Your task to perform on an android device: toggle location history Image 0: 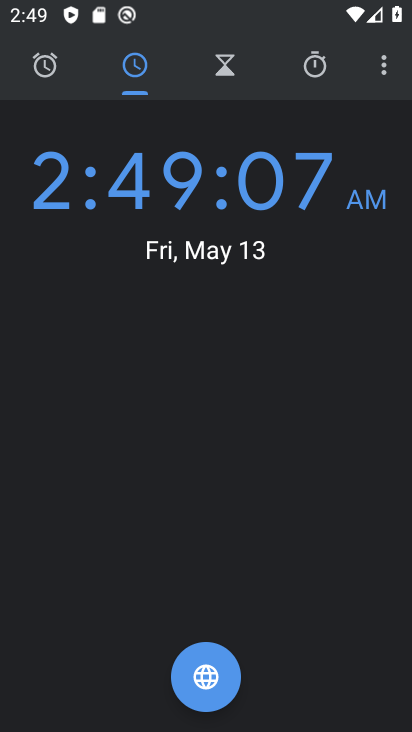
Step 0: press home button
Your task to perform on an android device: toggle location history Image 1: 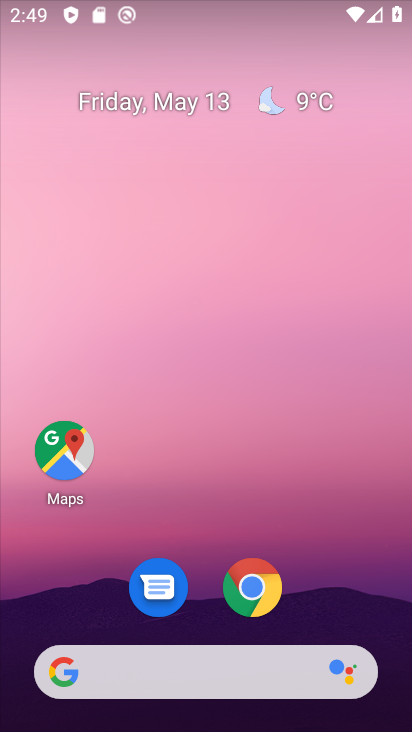
Step 1: drag from (334, 593) to (376, 171)
Your task to perform on an android device: toggle location history Image 2: 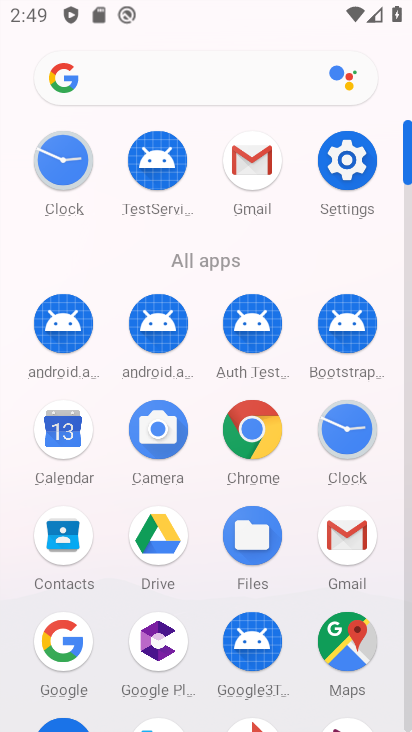
Step 2: click (361, 176)
Your task to perform on an android device: toggle location history Image 3: 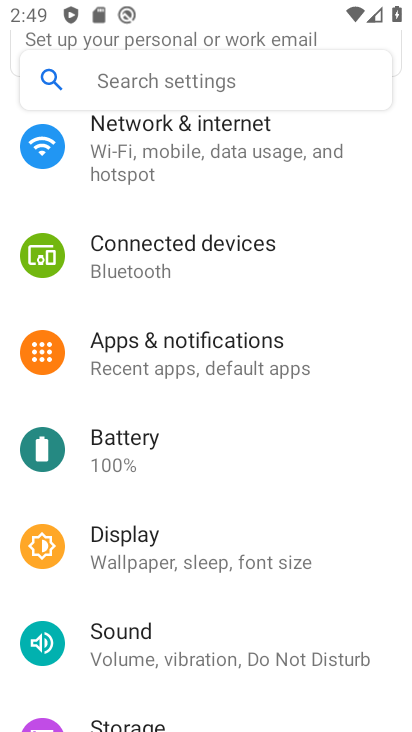
Step 3: drag from (192, 611) to (190, 191)
Your task to perform on an android device: toggle location history Image 4: 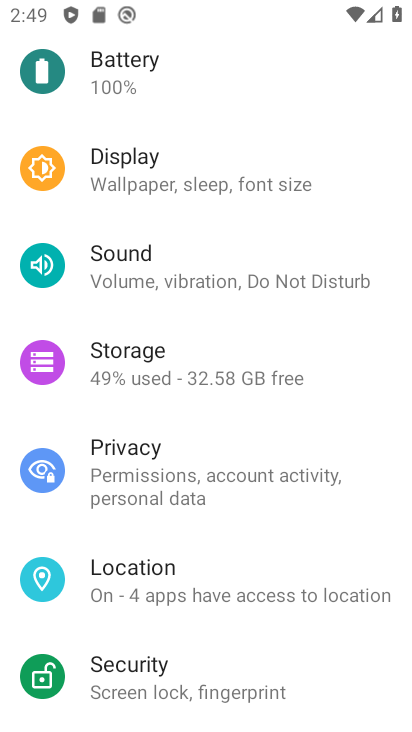
Step 4: click (206, 585)
Your task to perform on an android device: toggle location history Image 5: 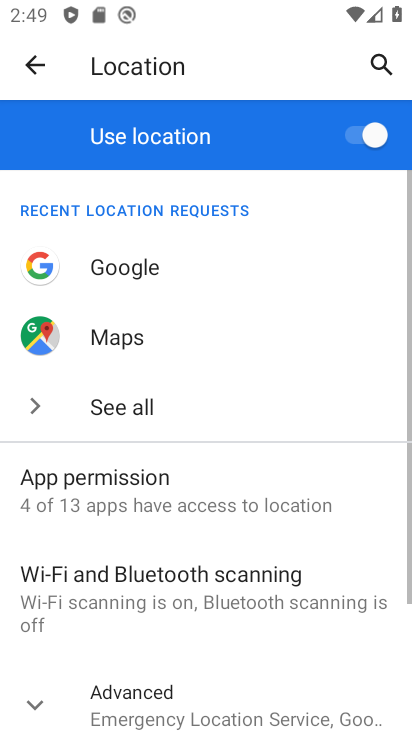
Step 5: drag from (171, 605) to (182, 324)
Your task to perform on an android device: toggle location history Image 6: 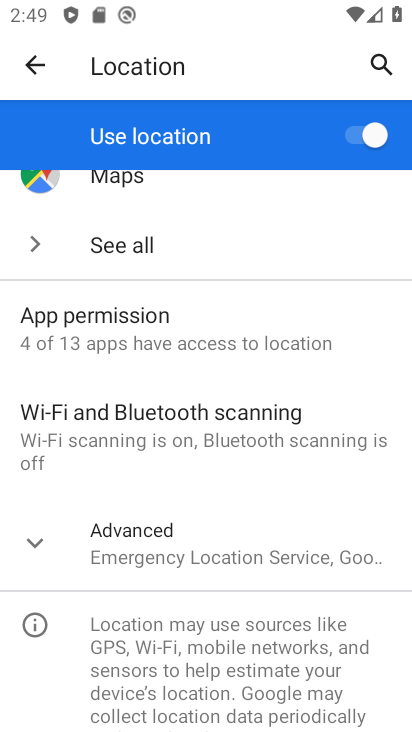
Step 6: click (35, 542)
Your task to perform on an android device: toggle location history Image 7: 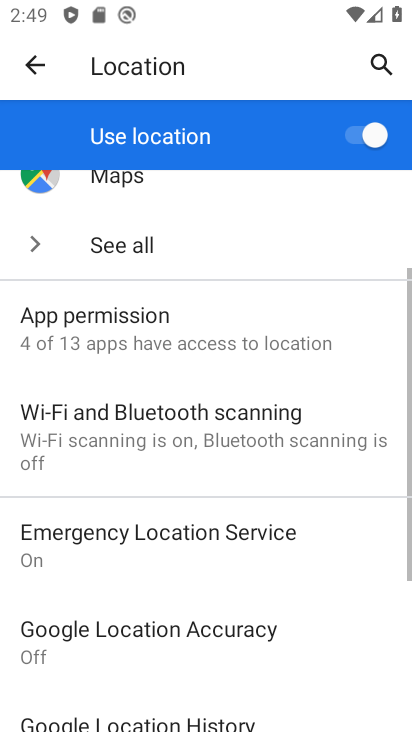
Step 7: drag from (179, 578) to (206, 205)
Your task to perform on an android device: toggle location history Image 8: 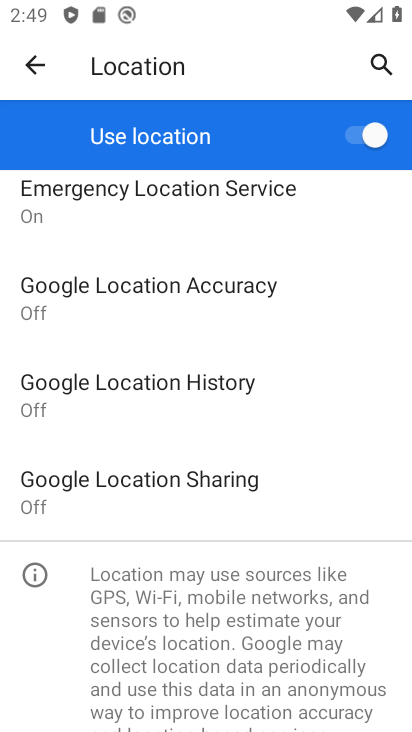
Step 8: click (203, 403)
Your task to perform on an android device: toggle location history Image 9: 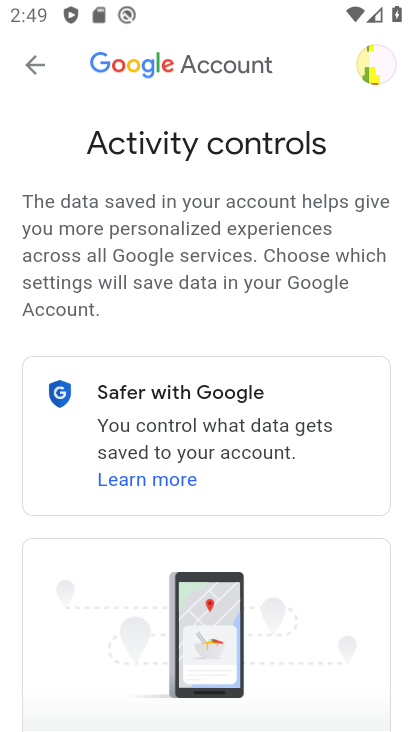
Step 9: drag from (322, 624) to (329, 317)
Your task to perform on an android device: toggle location history Image 10: 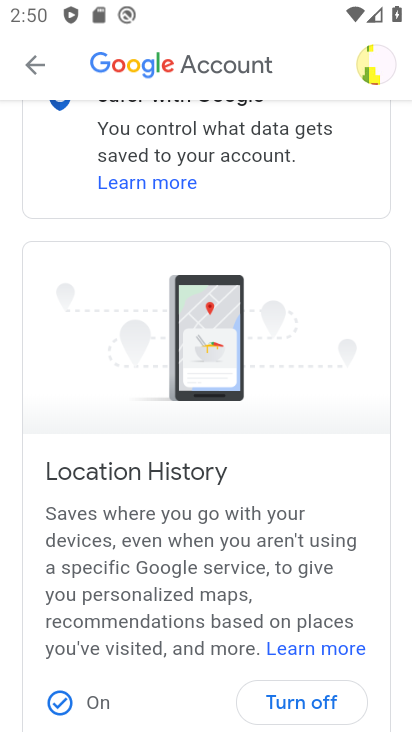
Step 10: click (319, 704)
Your task to perform on an android device: toggle location history Image 11: 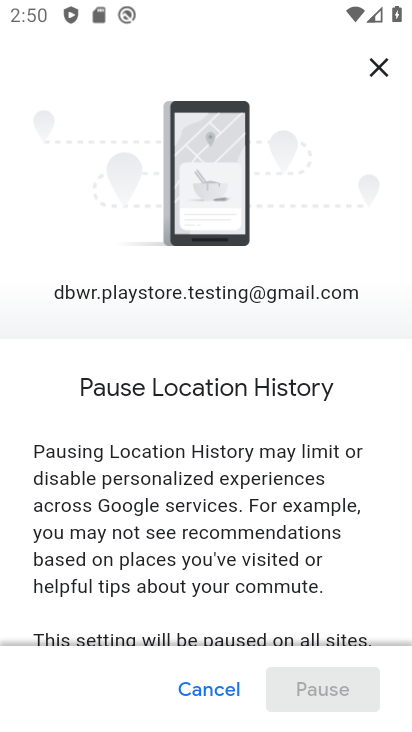
Step 11: drag from (327, 583) to (309, 206)
Your task to perform on an android device: toggle location history Image 12: 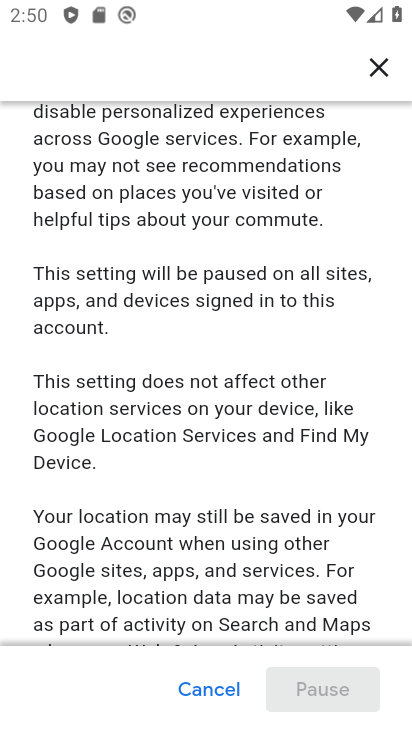
Step 12: drag from (306, 553) to (290, 265)
Your task to perform on an android device: toggle location history Image 13: 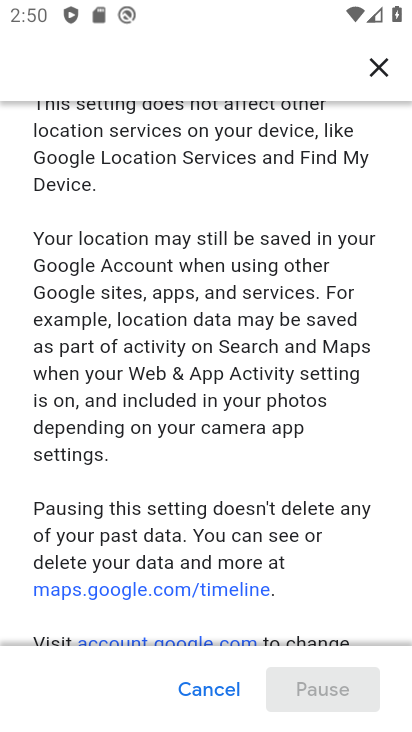
Step 13: drag from (272, 582) to (327, 262)
Your task to perform on an android device: toggle location history Image 14: 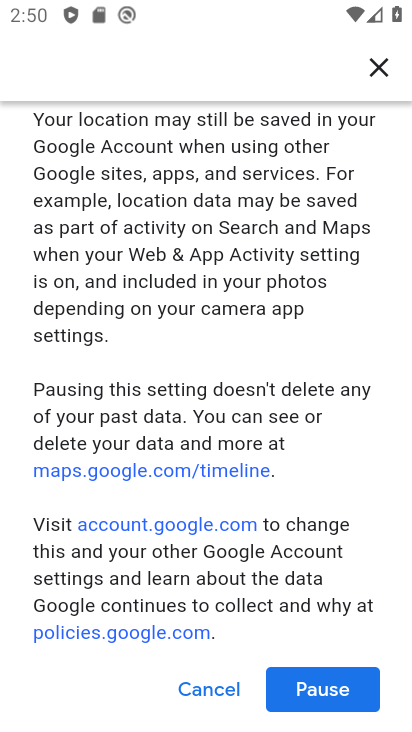
Step 14: drag from (339, 605) to (354, 284)
Your task to perform on an android device: toggle location history Image 15: 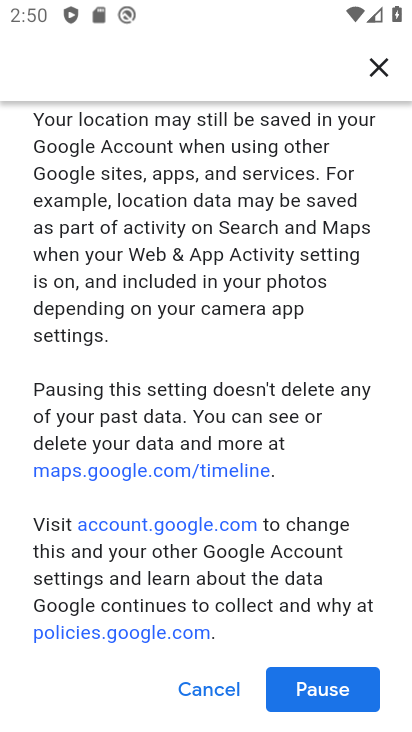
Step 15: drag from (286, 632) to (309, 450)
Your task to perform on an android device: toggle location history Image 16: 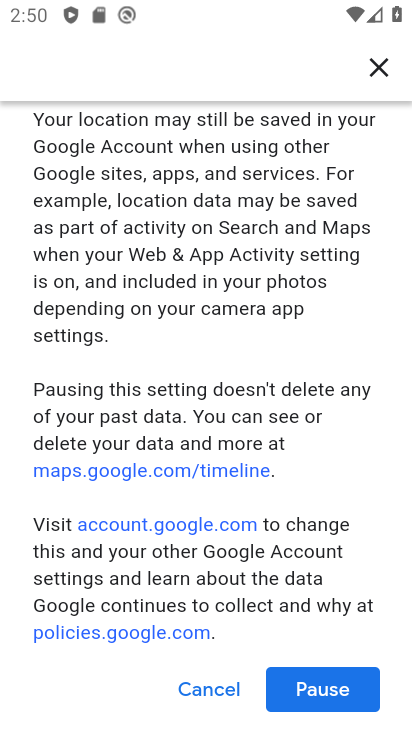
Step 16: click (319, 687)
Your task to perform on an android device: toggle location history Image 17: 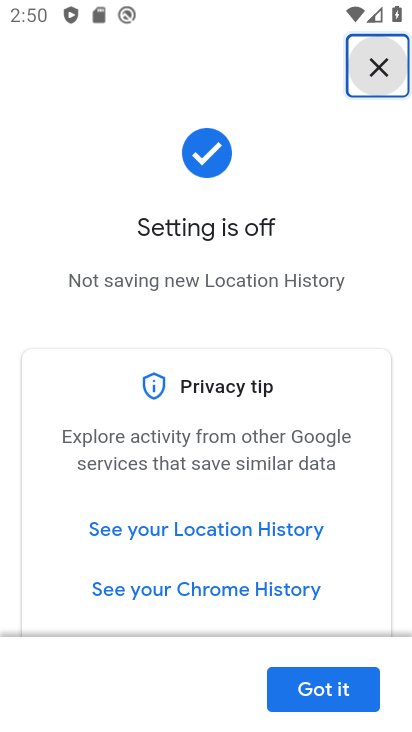
Step 17: click (318, 686)
Your task to perform on an android device: toggle location history Image 18: 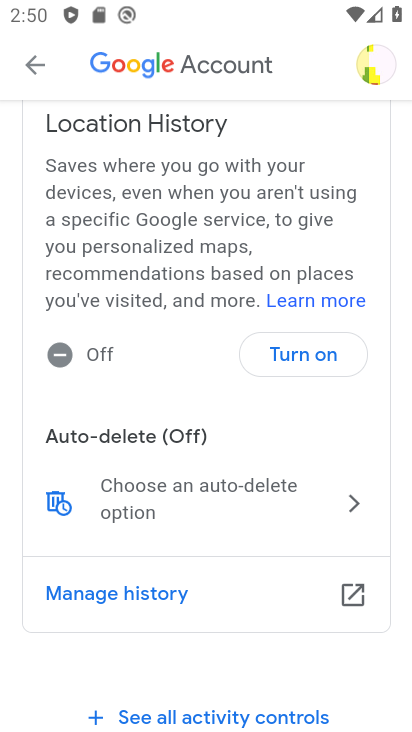
Step 18: task complete